Your task to perform on an android device: Go to CNN.com Image 0: 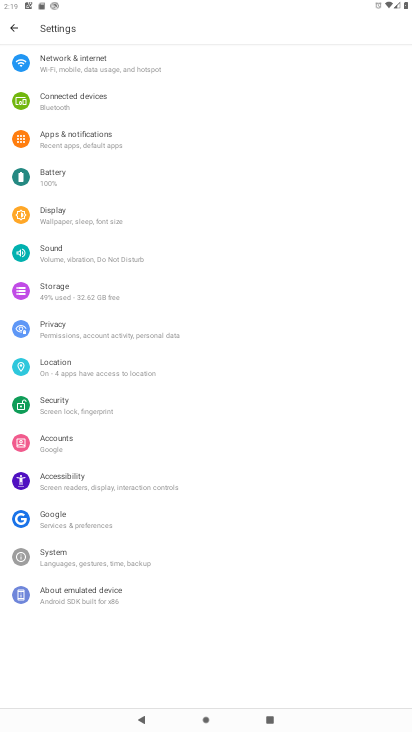
Step 0: press home button
Your task to perform on an android device: Go to CNN.com Image 1: 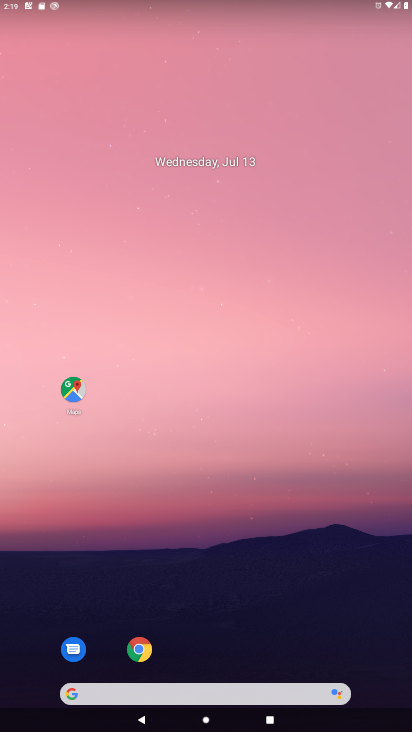
Step 1: drag from (256, 651) to (297, 123)
Your task to perform on an android device: Go to CNN.com Image 2: 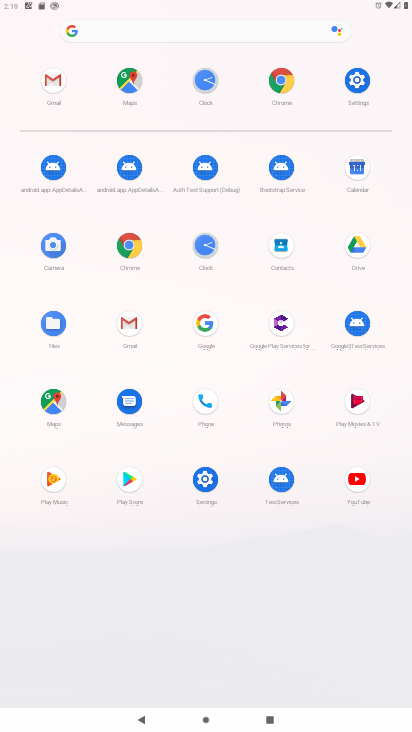
Step 2: click (127, 238)
Your task to perform on an android device: Go to CNN.com Image 3: 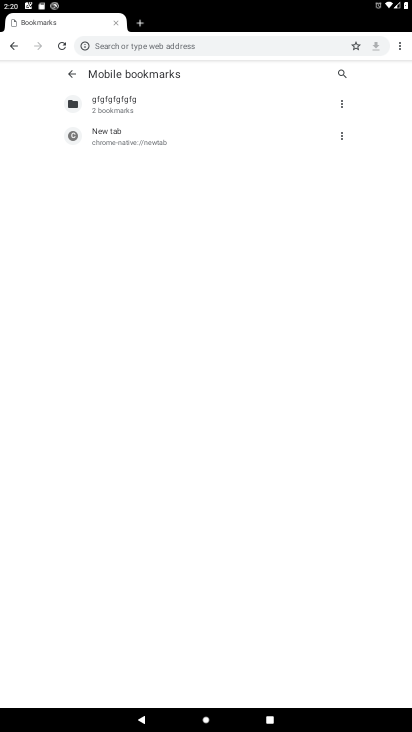
Step 3: press home button
Your task to perform on an android device: Go to CNN.com Image 4: 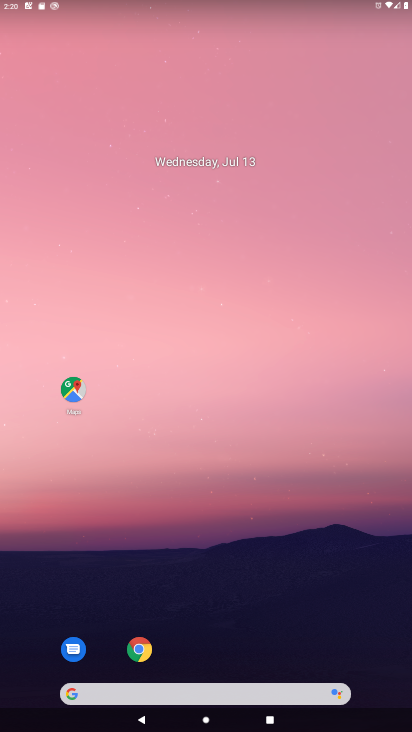
Step 4: click (133, 641)
Your task to perform on an android device: Go to CNN.com Image 5: 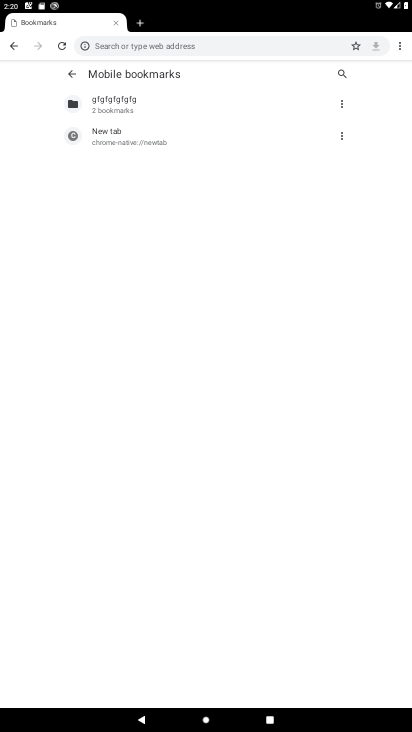
Step 5: click (118, 34)
Your task to perform on an android device: Go to CNN.com Image 6: 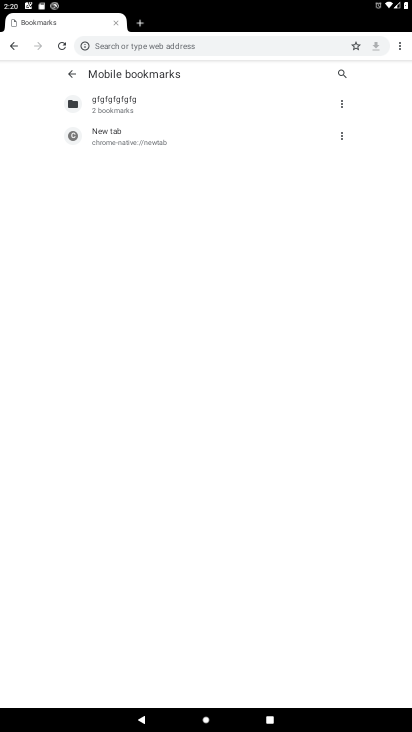
Step 6: click (98, 45)
Your task to perform on an android device: Go to CNN.com Image 7: 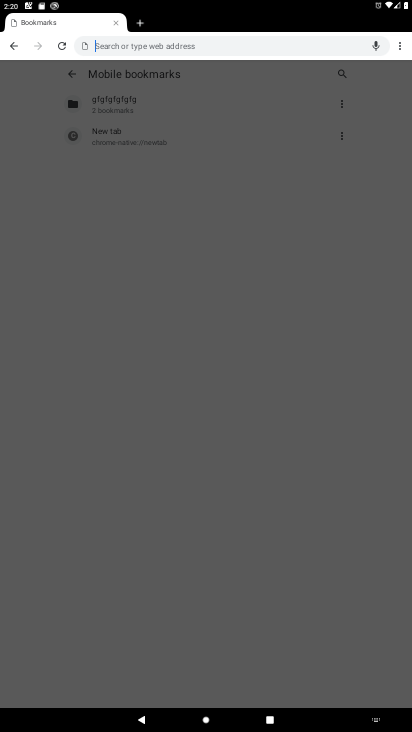
Step 7: type " CNN.com"
Your task to perform on an android device: Go to CNN.com Image 8: 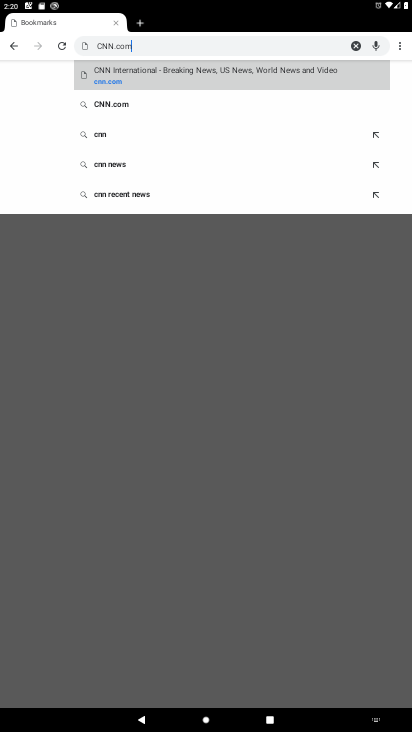
Step 8: type ""
Your task to perform on an android device: Go to CNN.com Image 9: 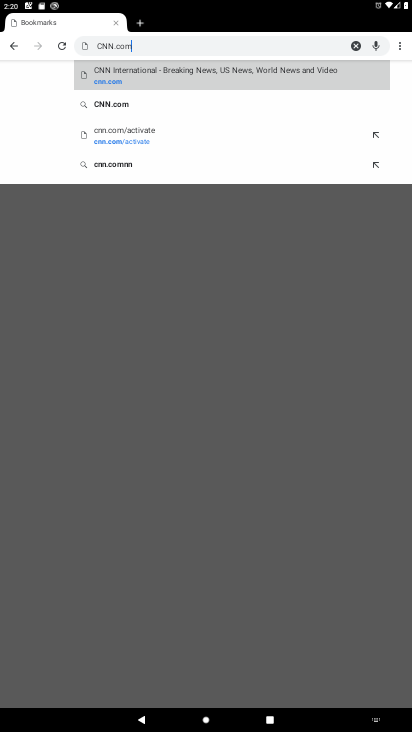
Step 9: click (108, 83)
Your task to perform on an android device: Go to CNN.com Image 10: 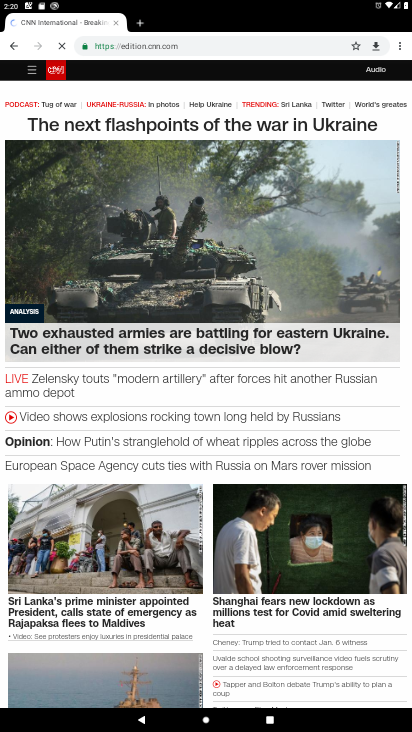
Step 10: task complete